Your task to perform on an android device: Set the phone to "Do not disturb". Image 0: 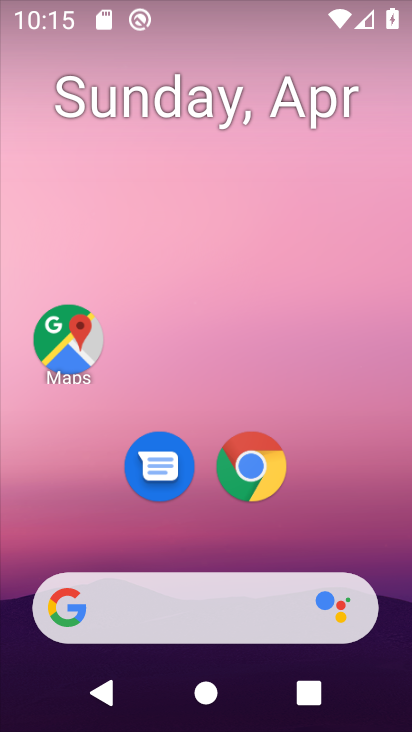
Step 0: drag from (359, 510) to (358, 100)
Your task to perform on an android device: Set the phone to "Do not disturb". Image 1: 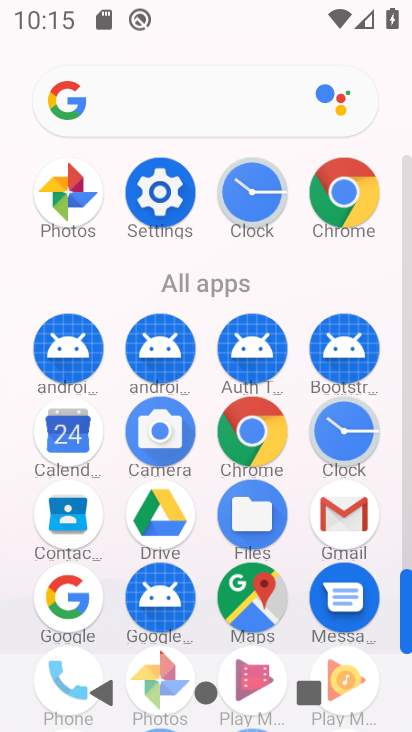
Step 1: click (173, 190)
Your task to perform on an android device: Set the phone to "Do not disturb". Image 2: 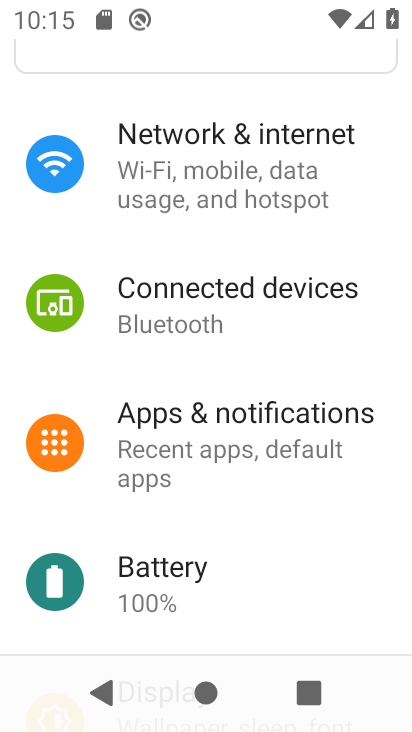
Step 2: drag from (344, 562) to (348, 361)
Your task to perform on an android device: Set the phone to "Do not disturb". Image 3: 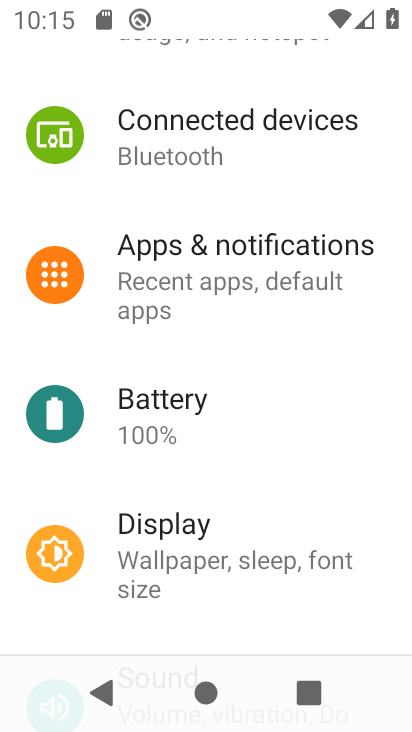
Step 3: drag from (356, 568) to (358, 422)
Your task to perform on an android device: Set the phone to "Do not disturb". Image 4: 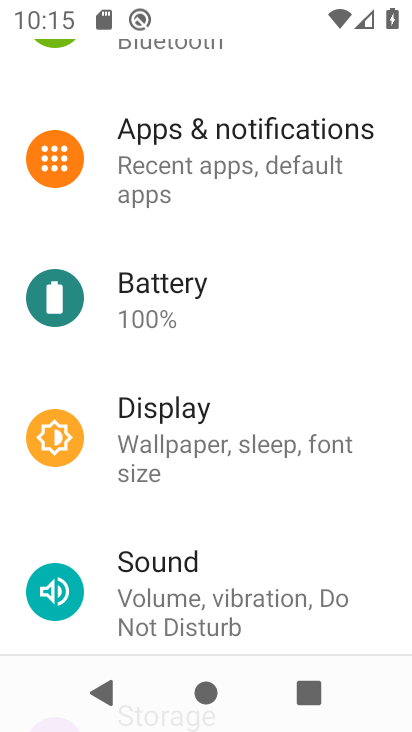
Step 4: drag from (320, 491) to (338, 309)
Your task to perform on an android device: Set the phone to "Do not disturb". Image 5: 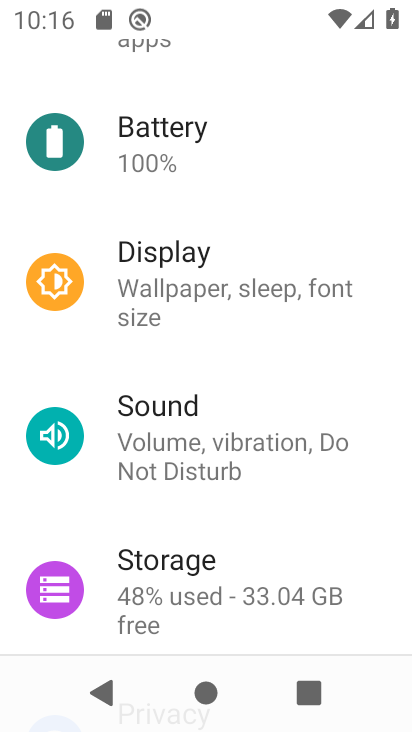
Step 5: click (252, 450)
Your task to perform on an android device: Set the phone to "Do not disturb". Image 6: 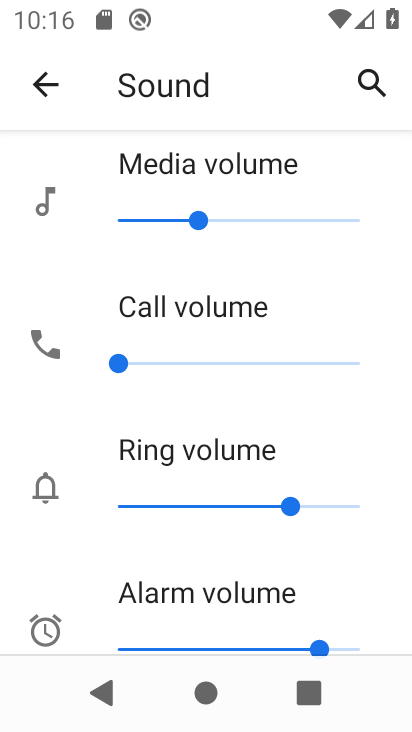
Step 6: drag from (360, 547) to (375, 316)
Your task to perform on an android device: Set the phone to "Do not disturb". Image 7: 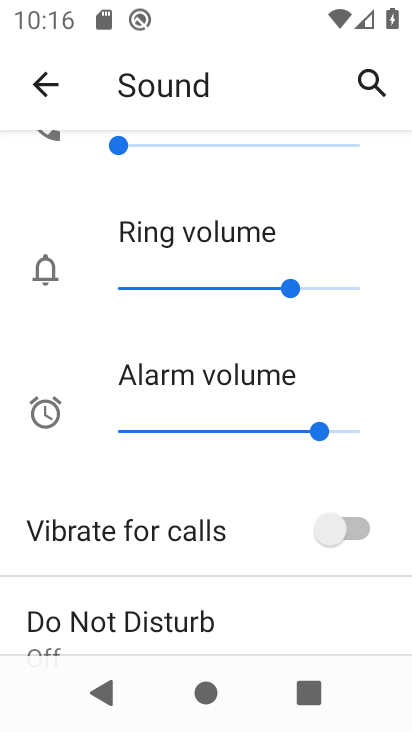
Step 7: drag from (372, 579) to (377, 332)
Your task to perform on an android device: Set the phone to "Do not disturb". Image 8: 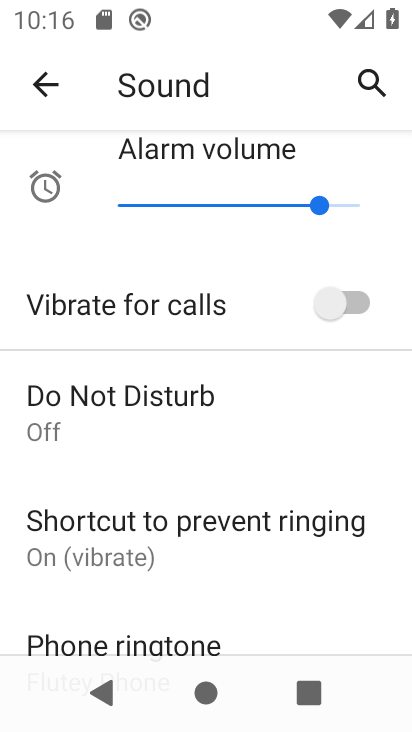
Step 8: click (121, 424)
Your task to perform on an android device: Set the phone to "Do not disturb". Image 9: 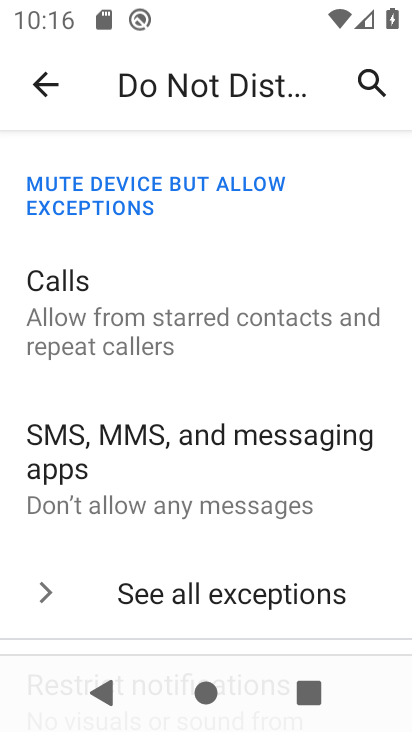
Step 9: drag from (315, 517) to (324, 277)
Your task to perform on an android device: Set the phone to "Do not disturb". Image 10: 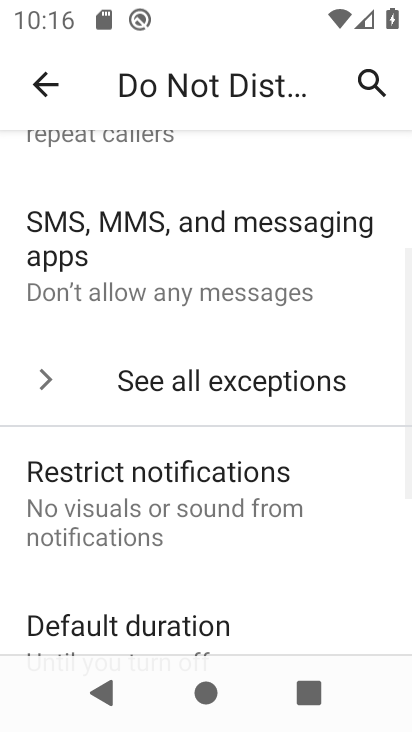
Step 10: drag from (339, 569) to (356, 273)
Your task to perform on an android device: Set the phone to "Do not disturb". Image 11: 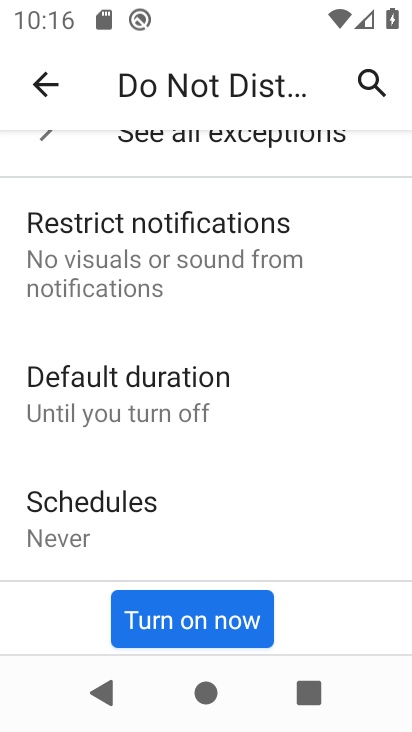
Step 11: click (225, 610)
Your task to perform on an android device: Set the phone to "Do not disturb". Image 12: 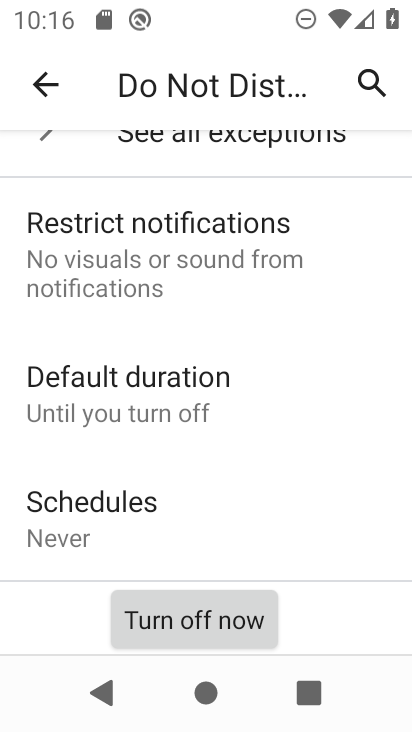
Step 12: task complete